Your task to perform on an android device: Open Reddit.com Image 0: 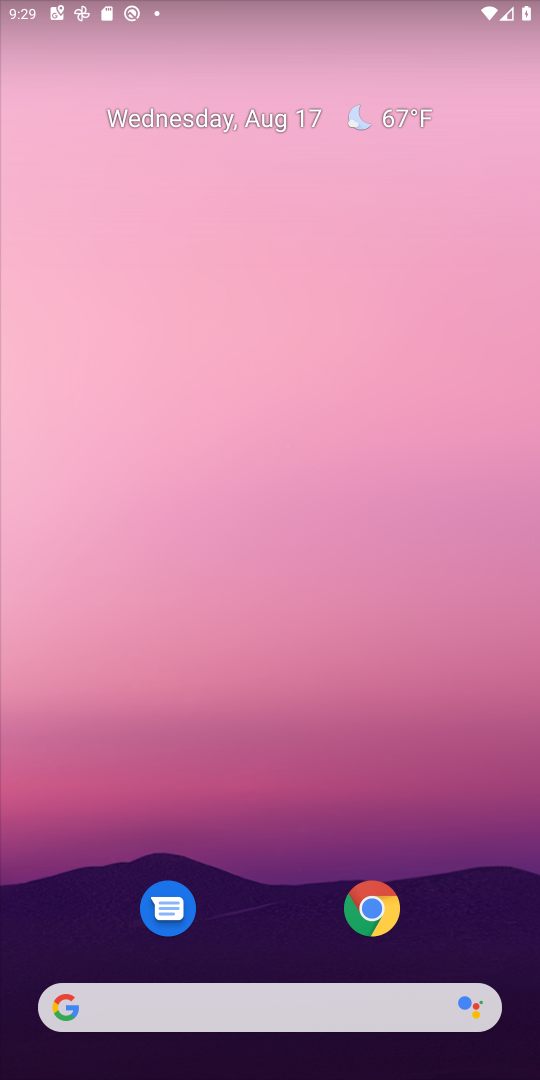
Step 0: drag from (287, 871) to (314, 237)
Your task to perform on an android device: Open Reddit.com Image 1: 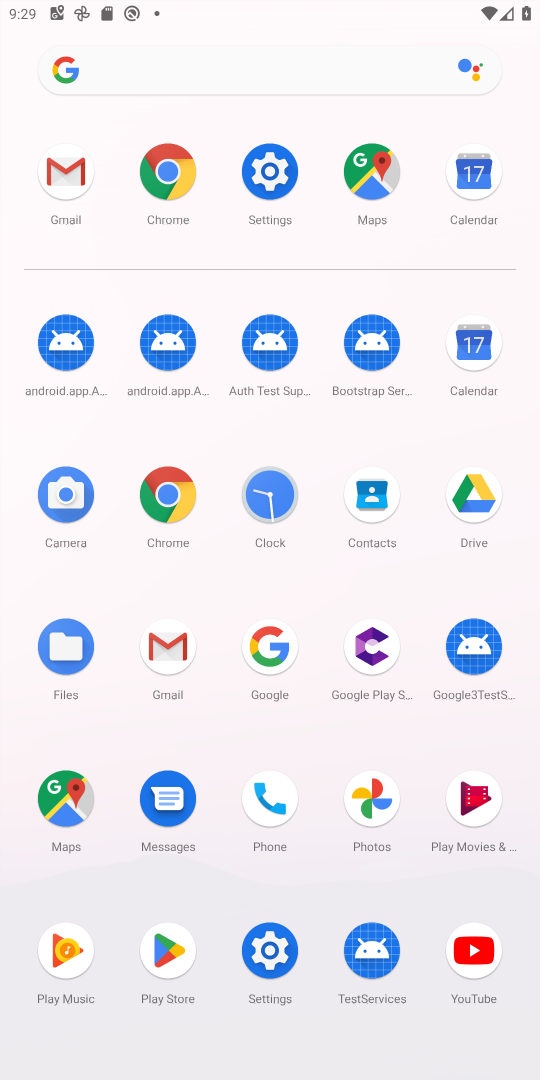
Step 1: click (163, 493)
Your task to perform on an android device: Open Reddit.com Image 2: 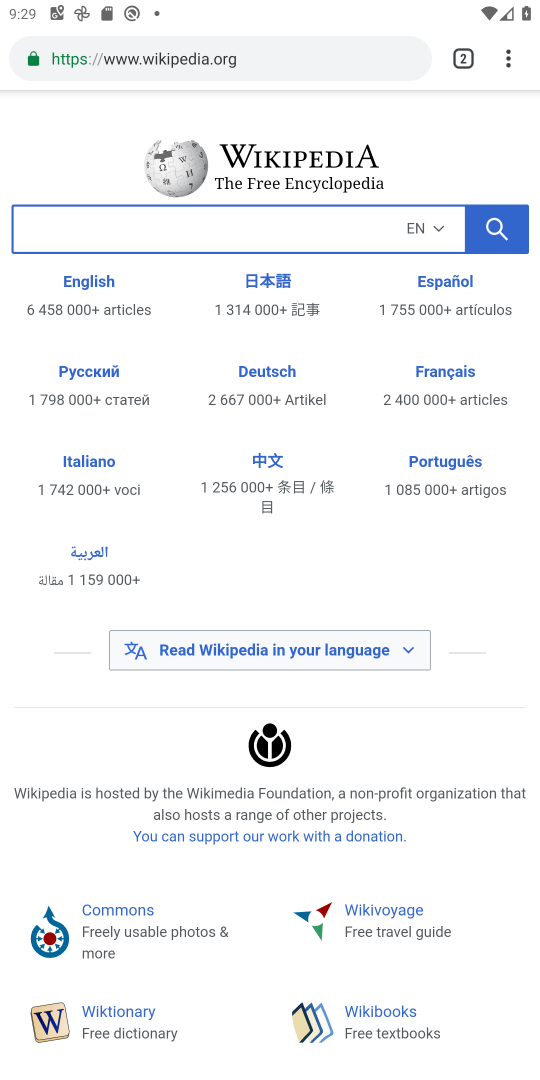
Step 2: click (351, 62)
Your task to perform on an android device: Open Reddit.com Image 3: 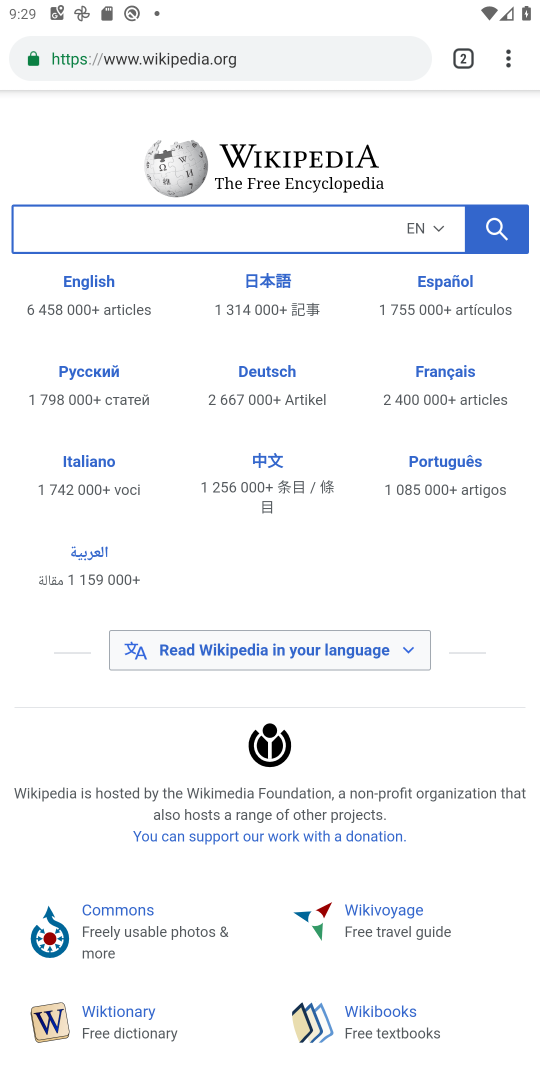
Step 3: click (351, 62)
Your task to perform on an android device: Open Reddit.com Image 4: 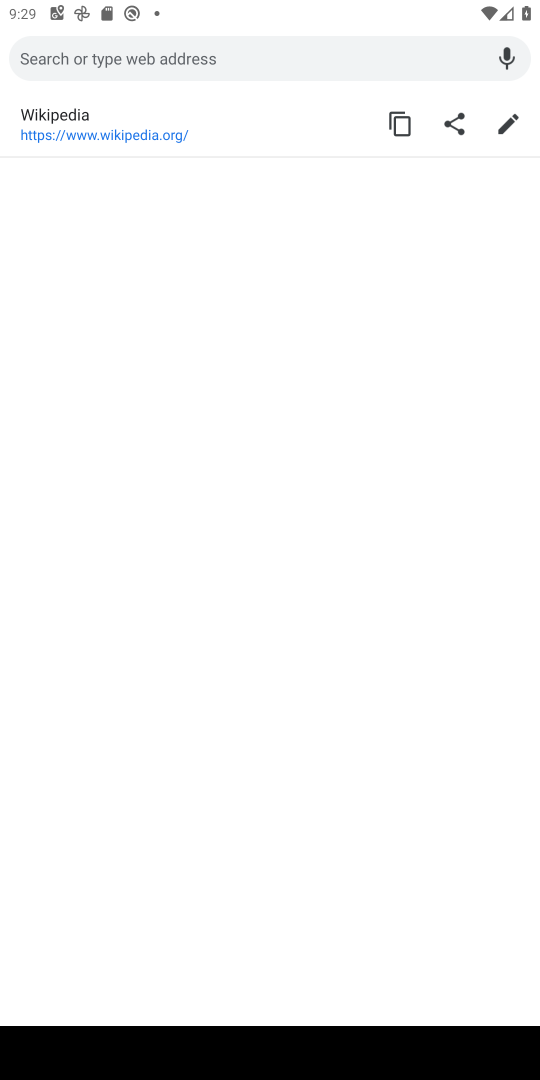
Step 4: type " Reddit.com"
Your task to perform on an android device: Open Reddit.com Image 5: 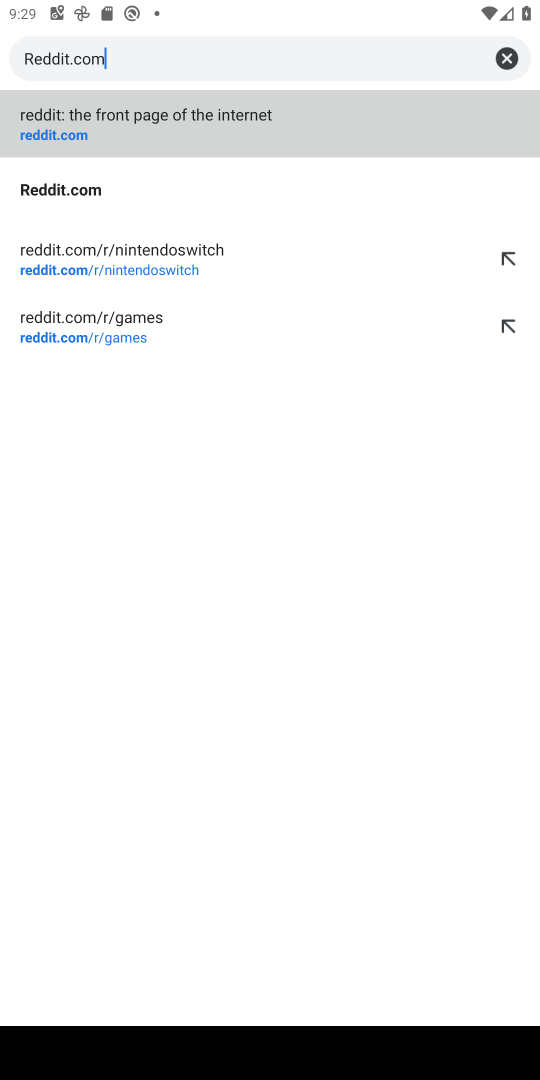
Step 5: click (46, 136)
Your task to perform on an android device: Open Reddit.com Image 6: 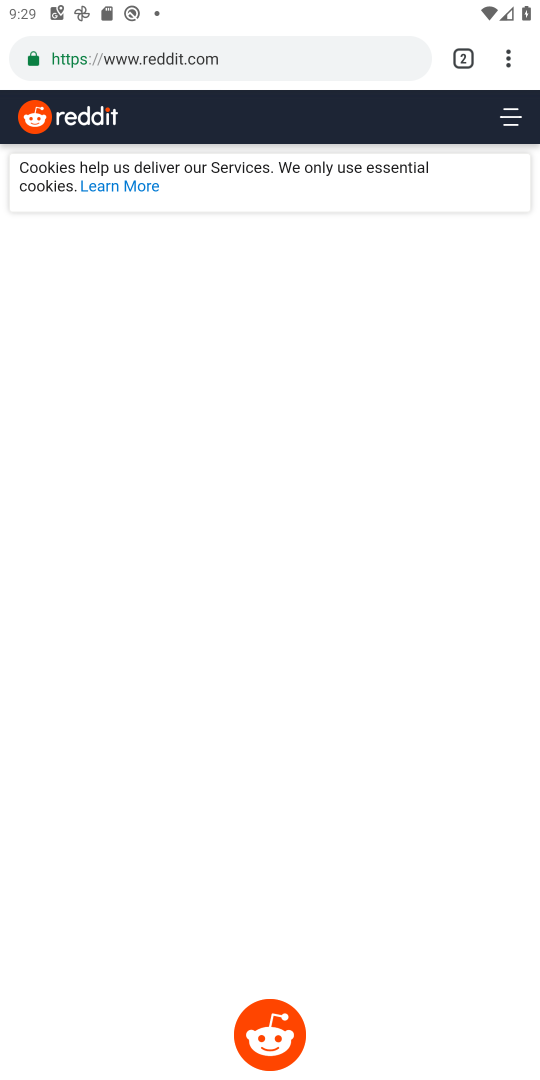
Step 6: task complete